Your task to perform on an android device: Go to Google Image 0: 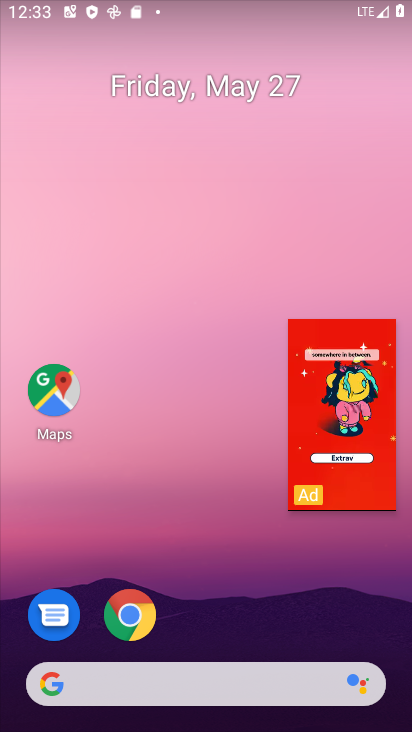
Step 0: click (373, 358)
Your task to perform on an android device: Go to Google Image 1: 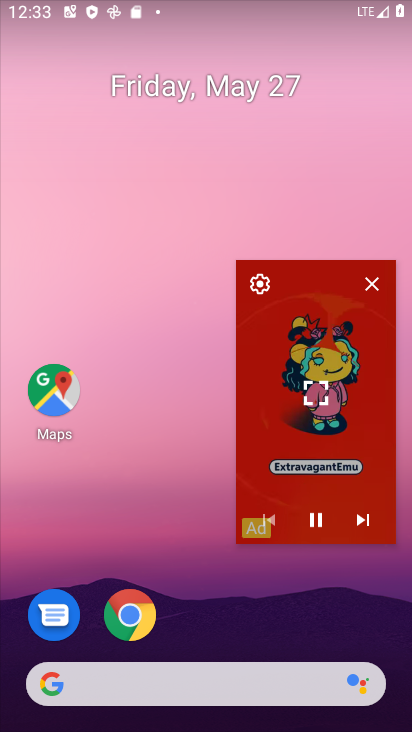
Step 1: click (375, 281)
Your task to perform on an android device: Go to Google Image 2: 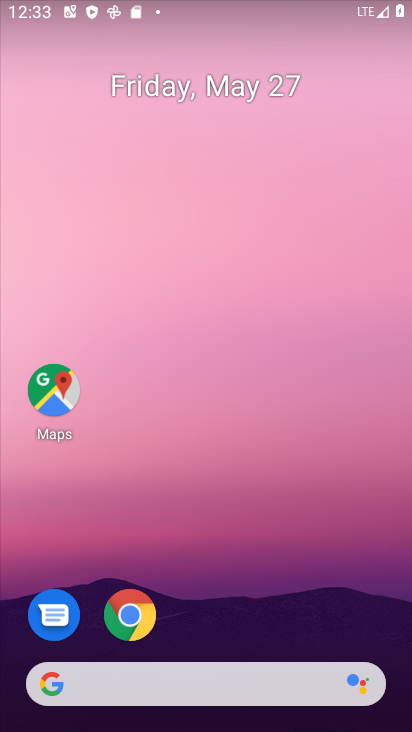
Step 2: drag from (175, 700) to (270, 56)
Your task to perform on an android device: Go to Google Image 3: 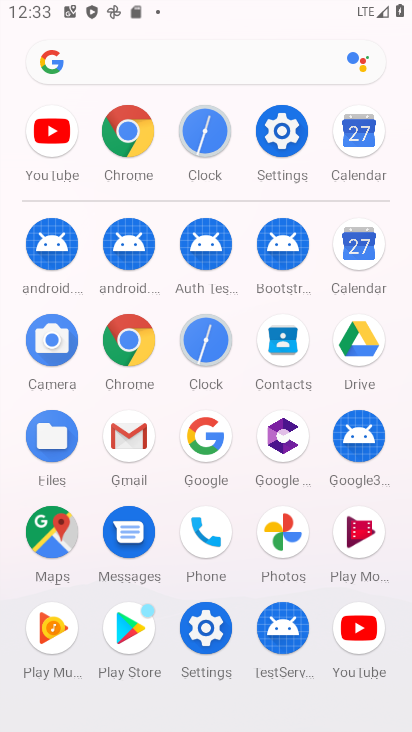
Step 3: click (210, 442)
Your task to perform on an android device: Go to Google Image 4: 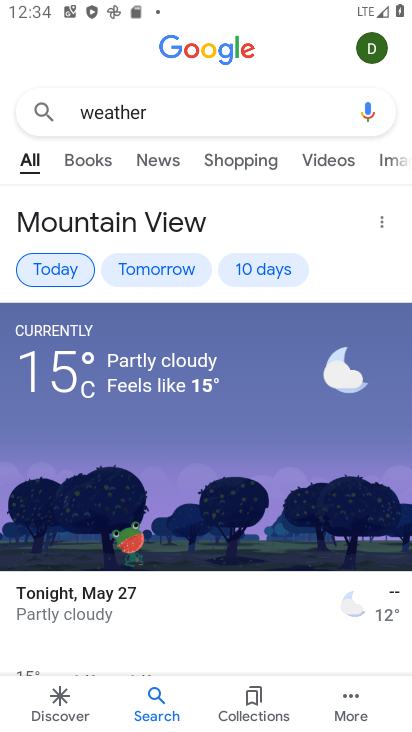
Step 4: task complete